Your task to perform on an android device: Add "beats solo 3" to the cart on target Image 0: 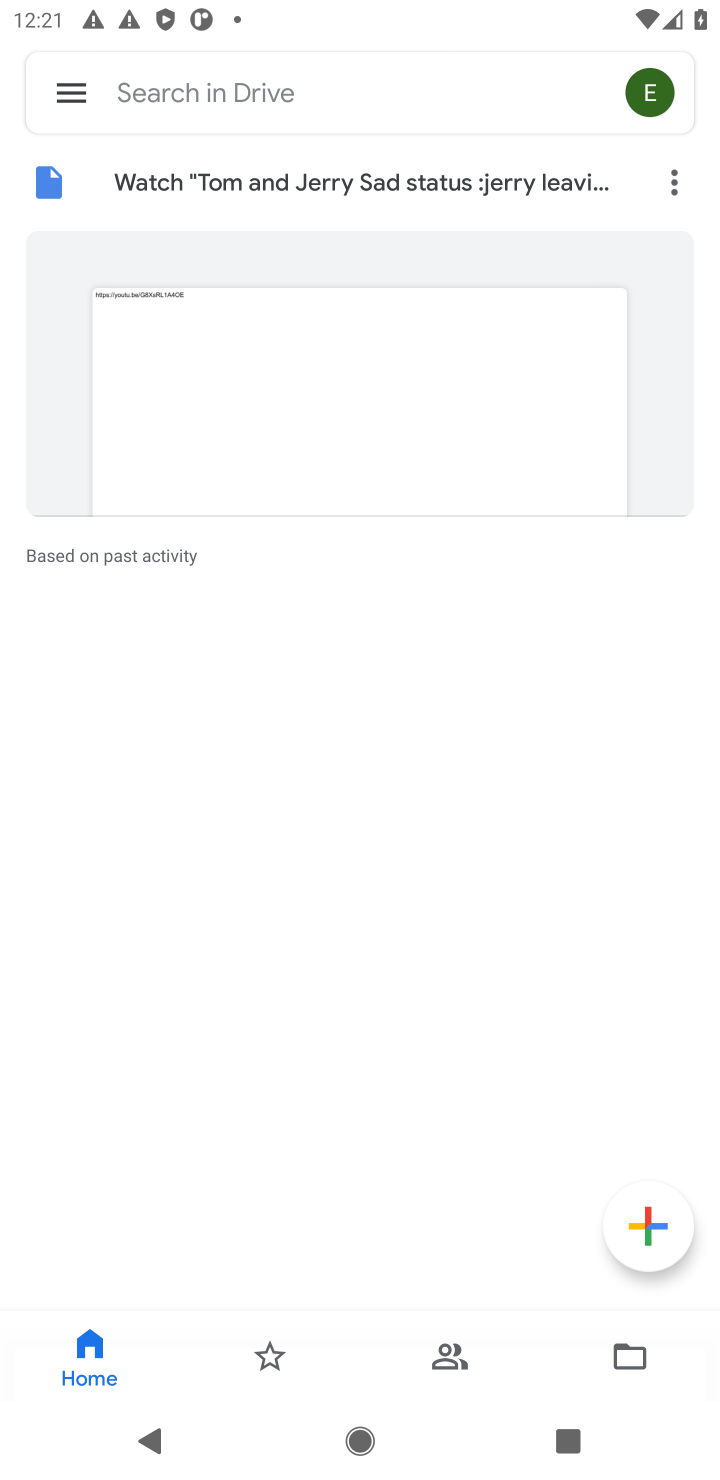
Step 0: press home button
Your task to perform on an android device: Add "beats solo 3" to the cart on target Image 1: 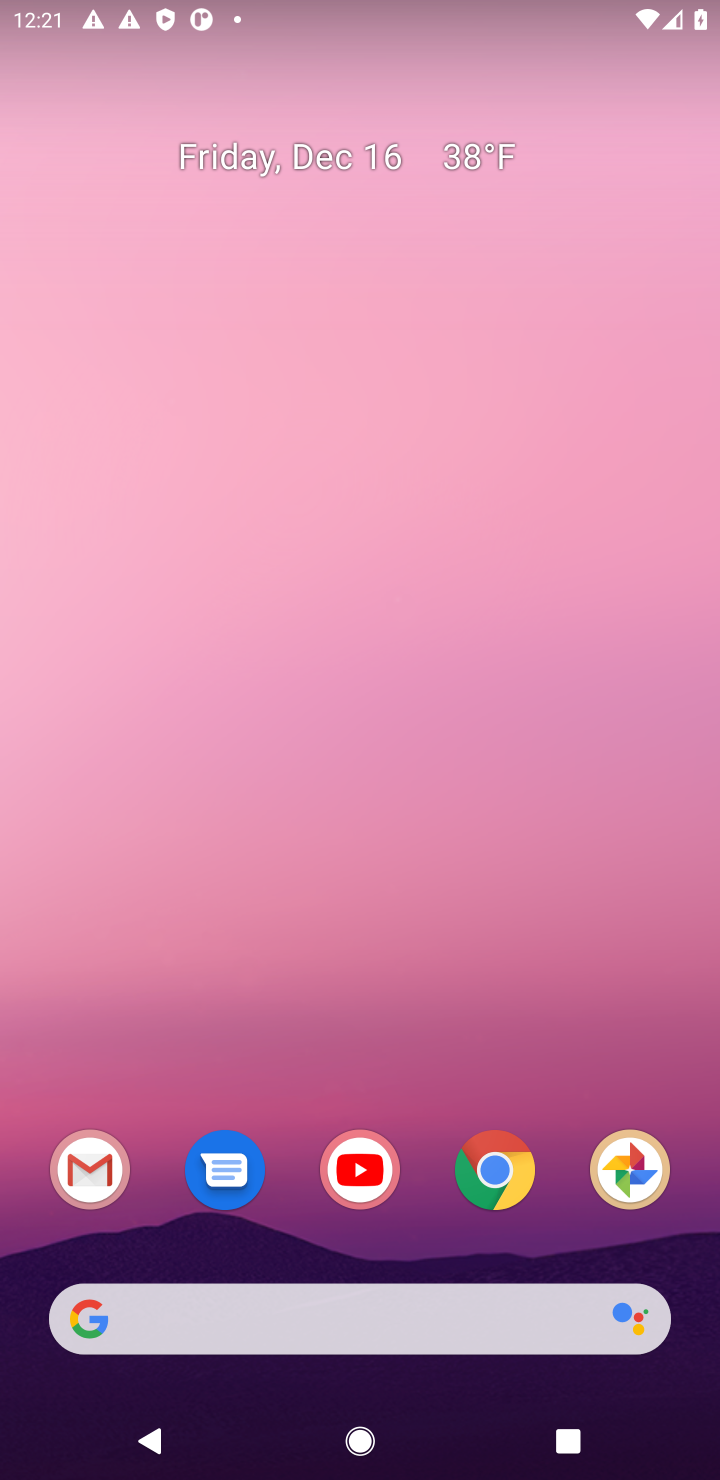
Step 1: click (503, 1178)
Your task to perform on an android device: Add "beats solo 3" to the cart on target Image 2: 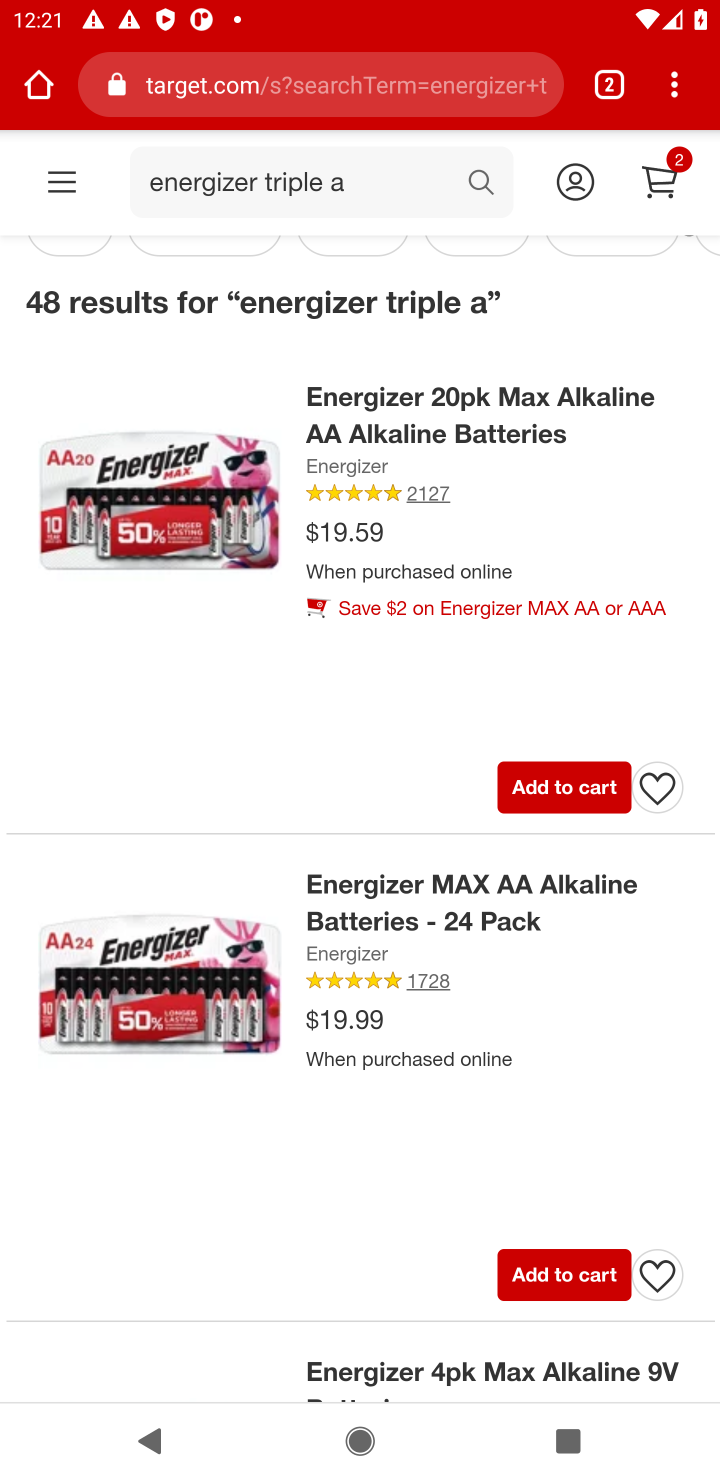
Step 2: click (200, 170)
Your task to perform on an android device: Add "beats solo 3" to the cart on target Image 3: 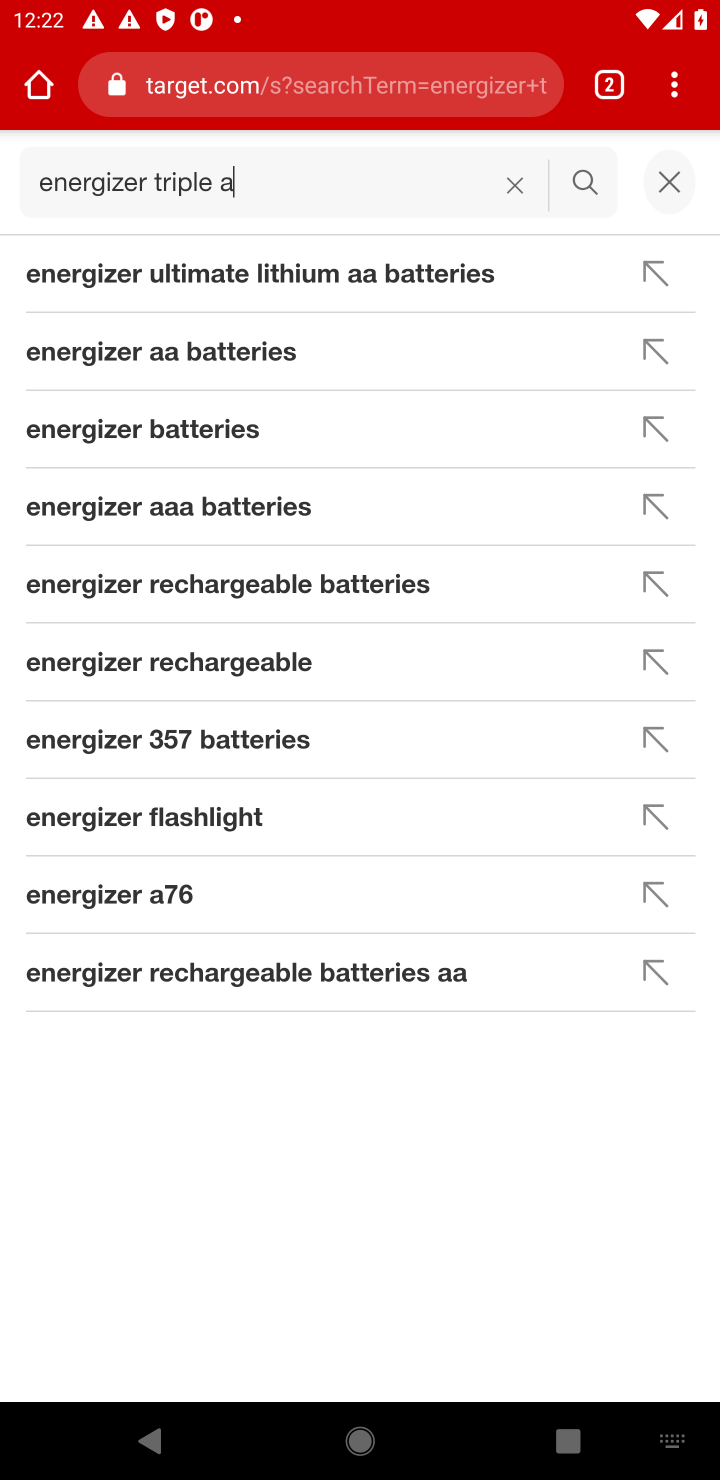
Step 3: click (507, 188)
Your task to perform on an android device: Add "beats solo 3" to the cart on target Image 4: 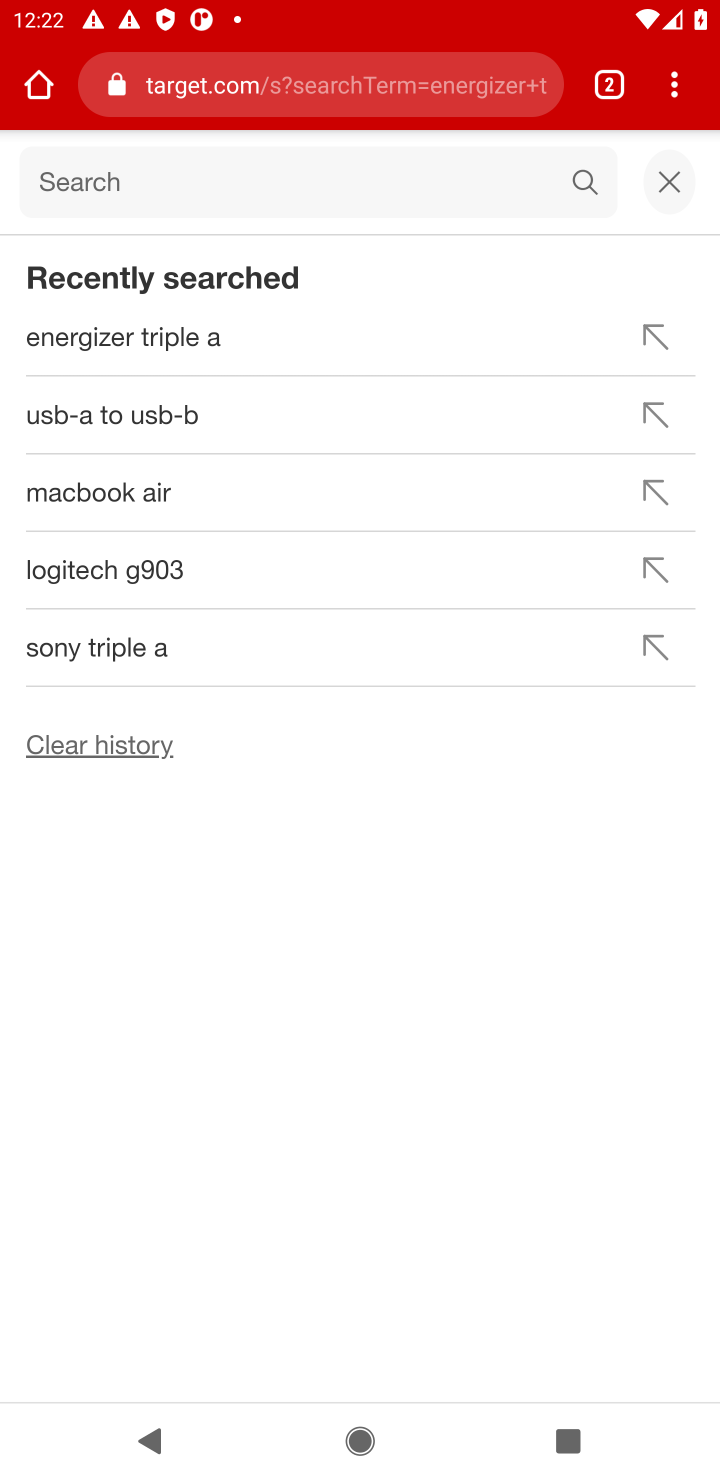
Step 4: click (126, 184)
Your task to perform on an android device: Add "beats solo 3" to the cart on target Image 5: 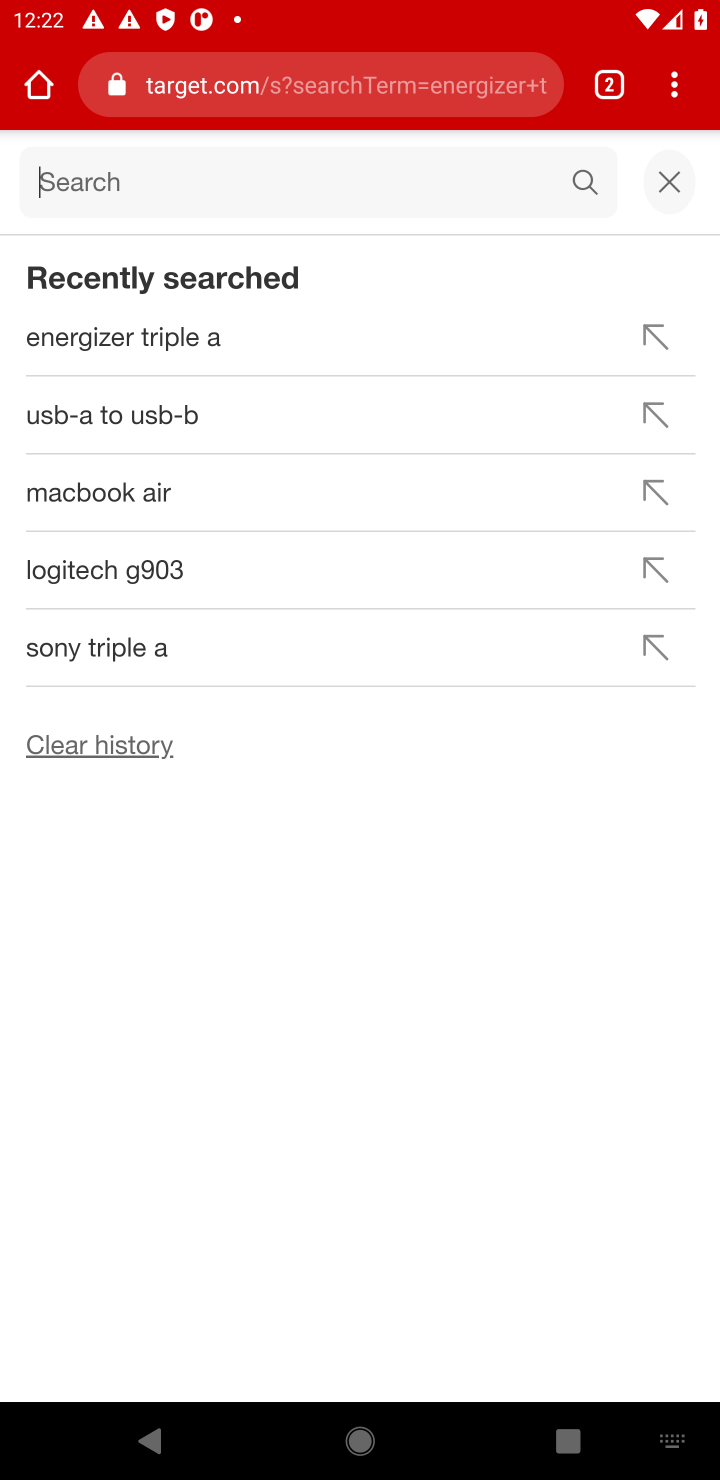
Step 5: type "beats solo 3"
Your task to perform on an android device: Add "beats solo 3" to the cart on target Image 6: 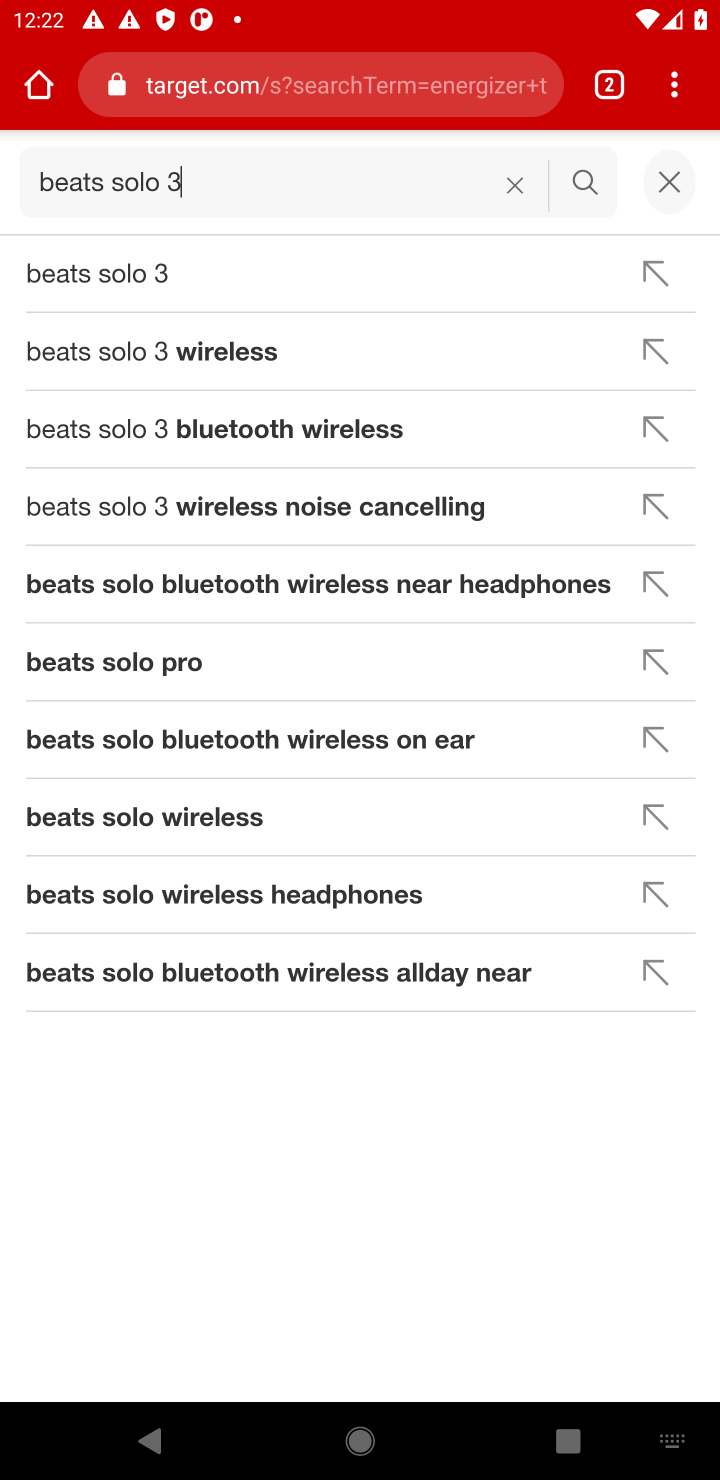
Step 6: click (127, 273)
Your task to perform on an android device: Add "beats solo 3" to the cart on target Image 7: 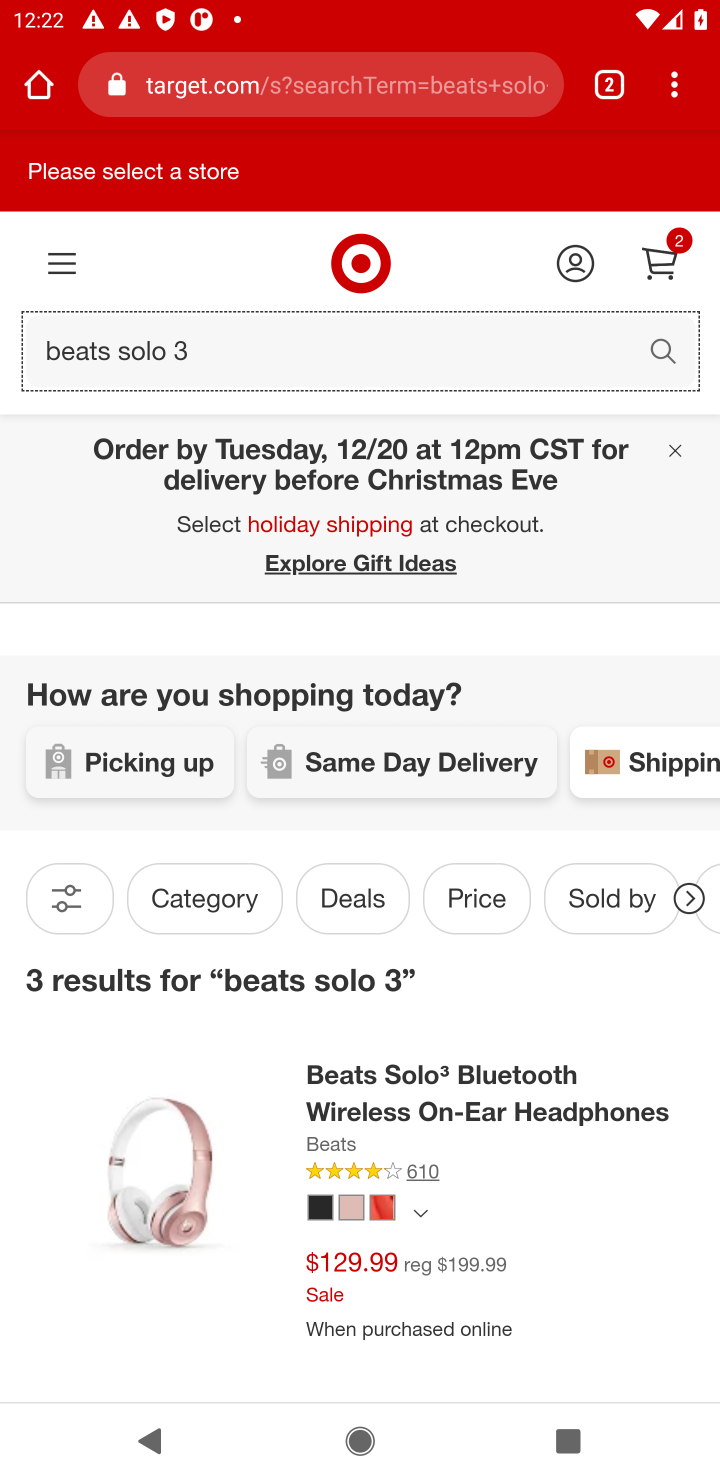
Step 7: drag from (214, 1064) to (239, 665)
Your task to perform on an android device: Add "beats solo 3" to the cart on target Image 8: 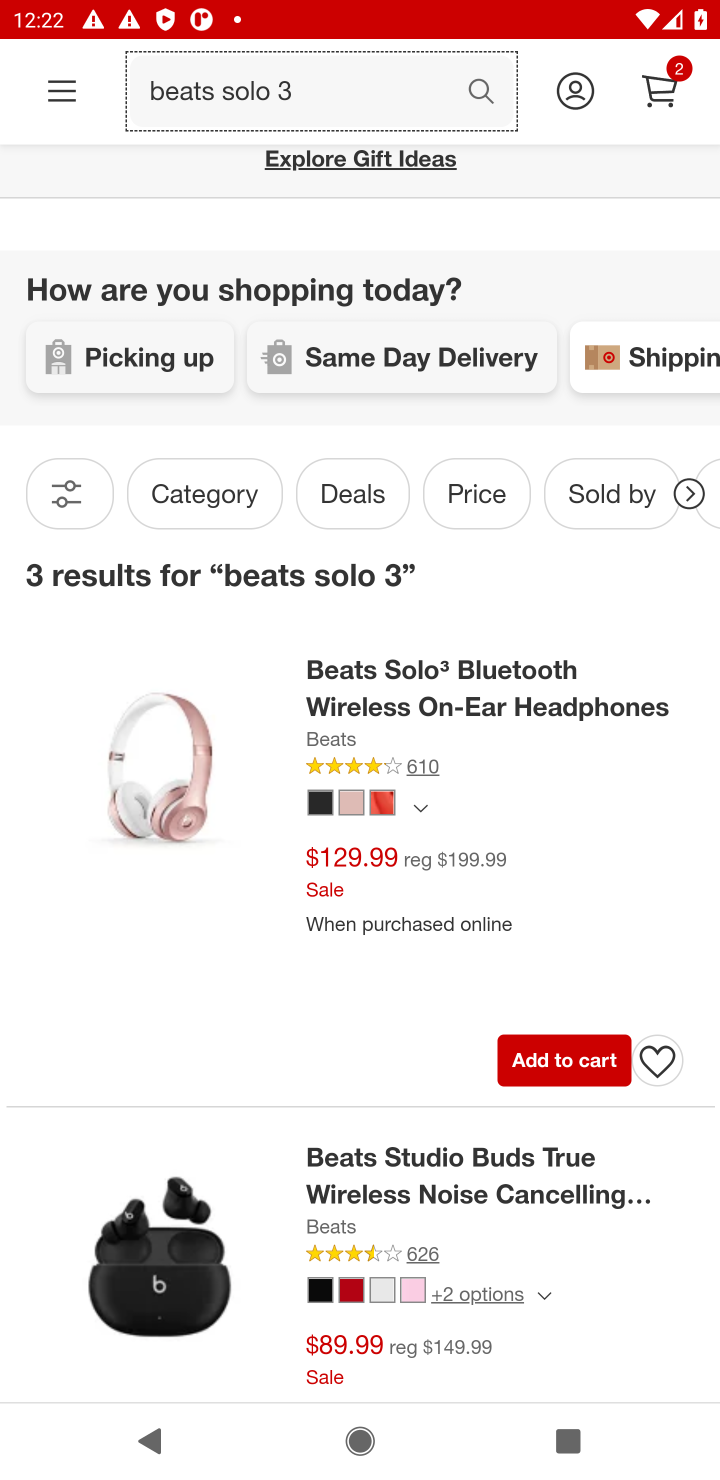
Step 8: click (543, 1062)
Your task to perform on an android device: Add "beats solo 3" to the cart on target Image 9: 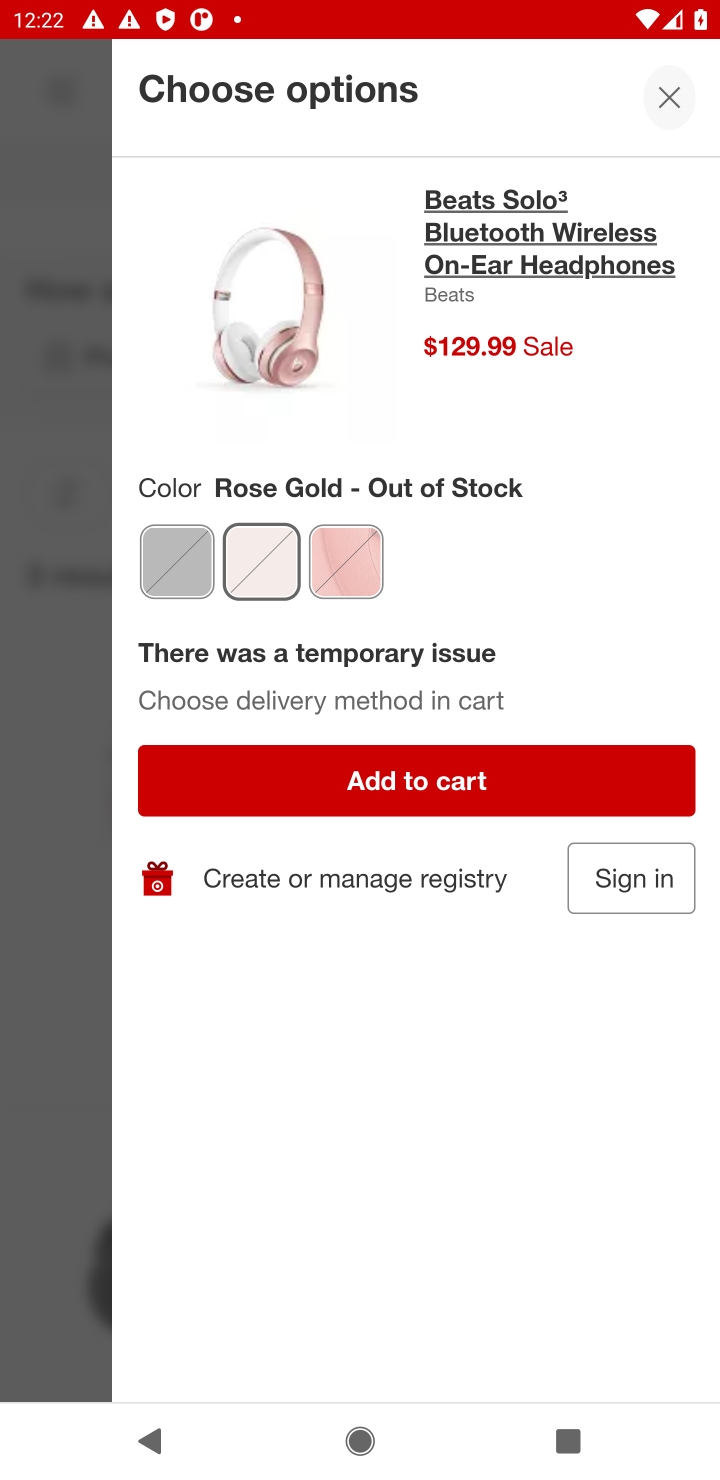
Step 9: click (420, 774)
Your task to perform on an android device: Add "beats solo 3" to the cart on target Image 10: 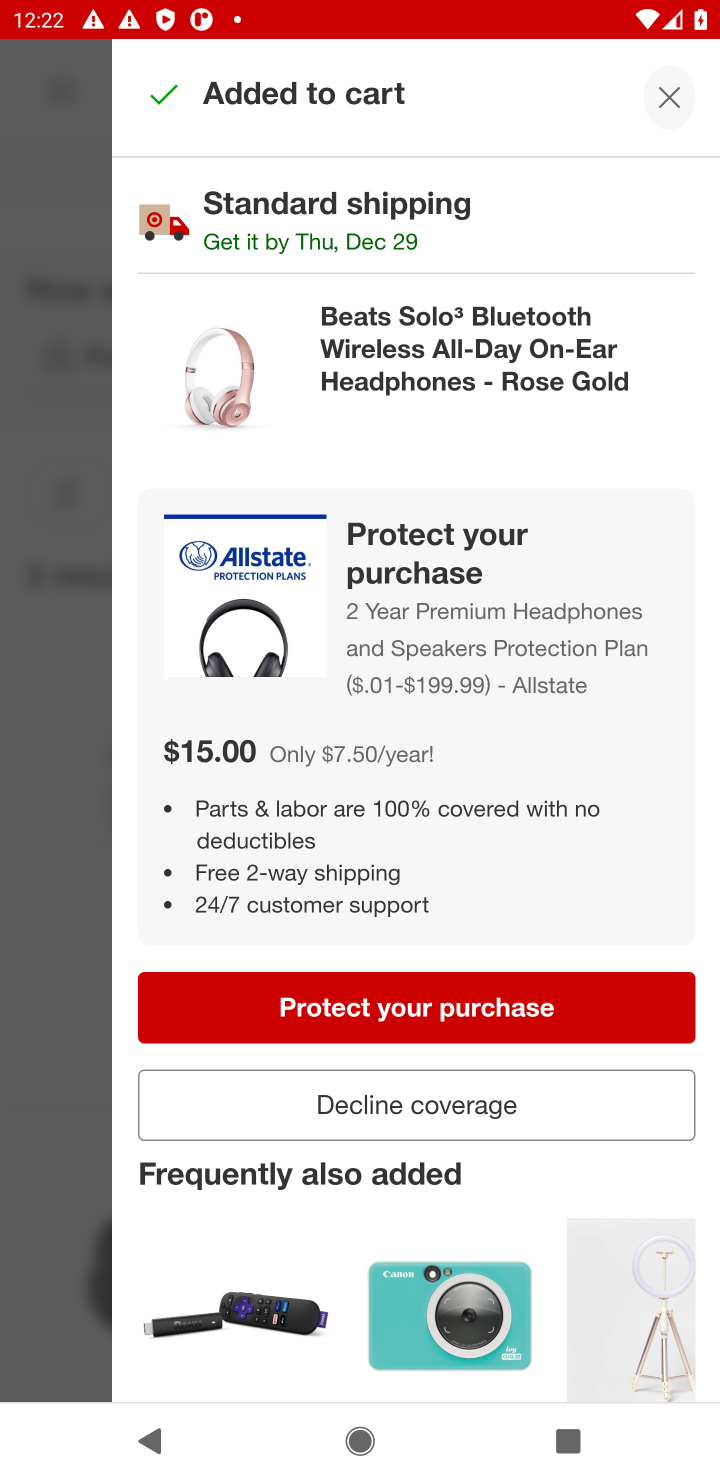
Step 10: task complete